Your task to perform on an android device: Go to sound settings Image 0: 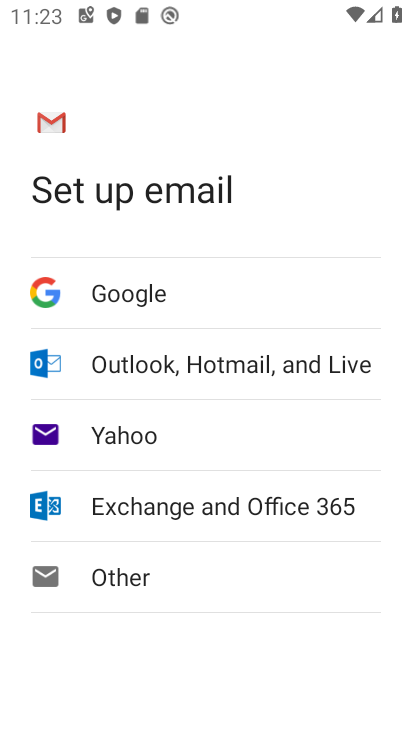
Step 0: press home button
Your task to perform on an android device: Go to sound settings Image 1: 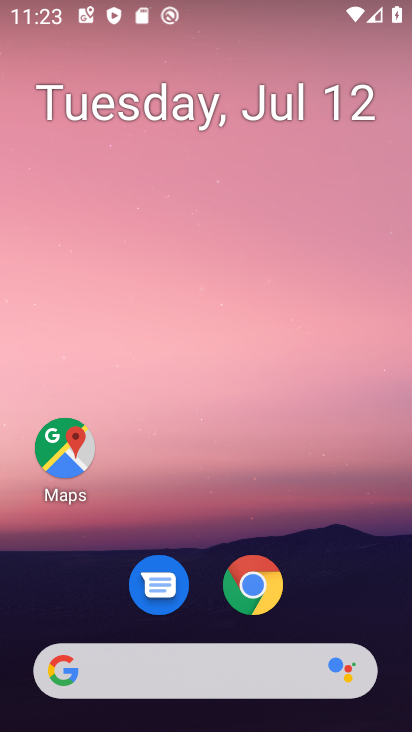
Step 1: click (250, 140)
Your task to perform on an android device: Go to sound settings Image 2: 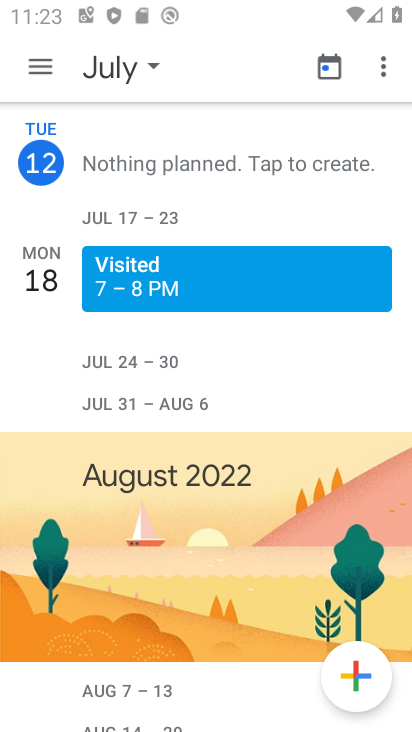
Step 2: drag from (310, 608) to (321, 389)
Your task to perform on an android device: Go to sound settings Image 3: 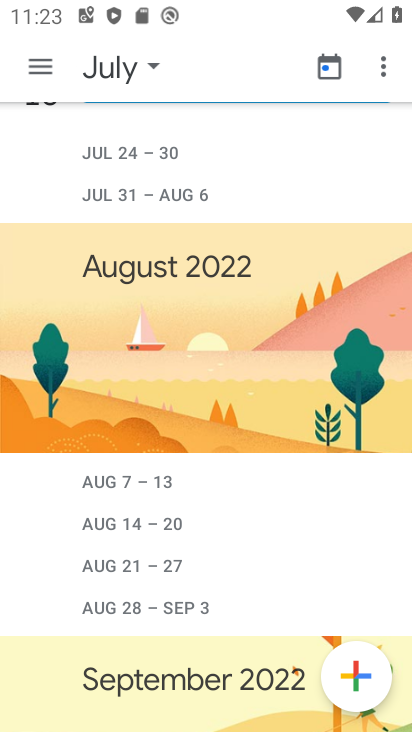
Step 3: press home button
Your task to perform on an android device: Go to sound settings Image 4: 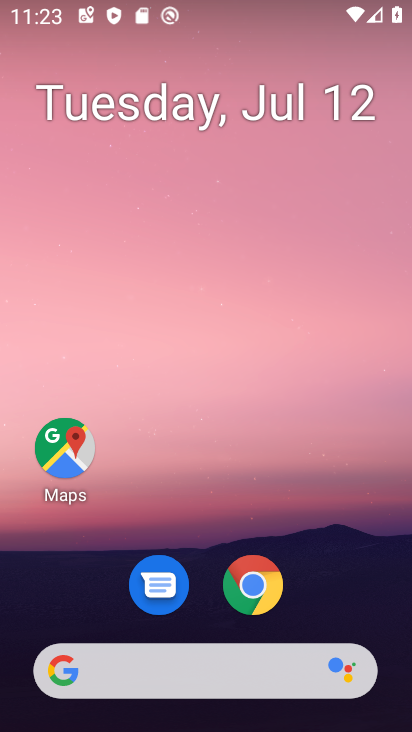
Step 4: drag from (337, 574) to (381, 0)
Your task to perform on an android device: Go to sound settings Image 5: 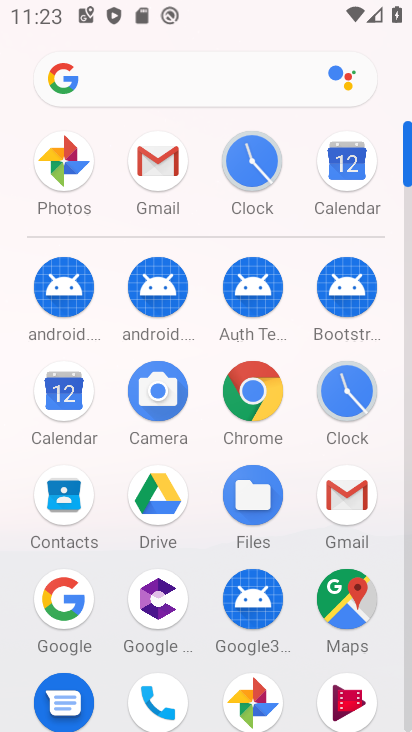
Step 5: drag from (211, 470) to (241, 228)
Your task to perform on an android device: Go to sound settings Image 6: 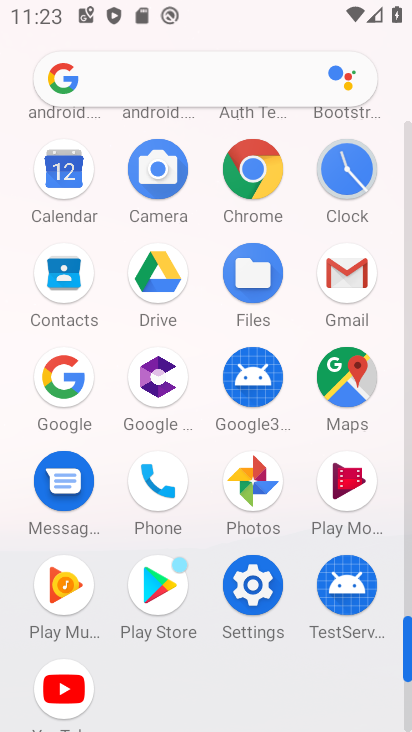
Step 6: click (256, 591)
Your task to perform on an android device: Go to sound settings Image 7: 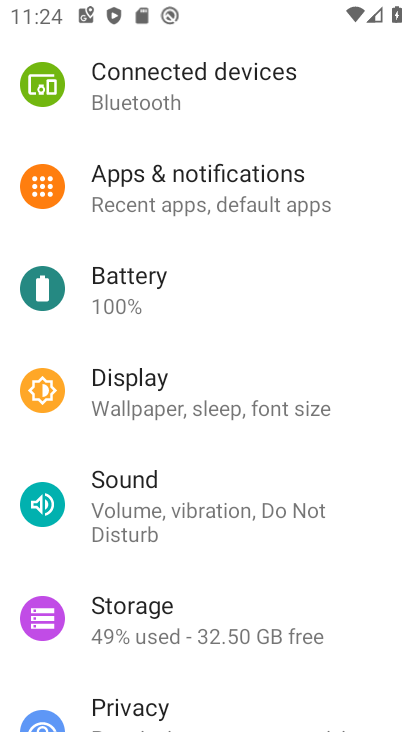
Step 7: click (187, 520)
Your task to perform on an android device: Go to sound settings Image 8: 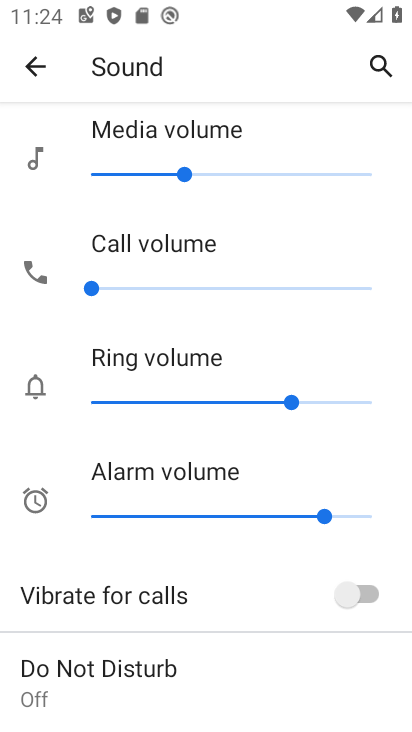
Step 8: task complete